Your task to perform on an android device: Go to wifi settings Image 0: 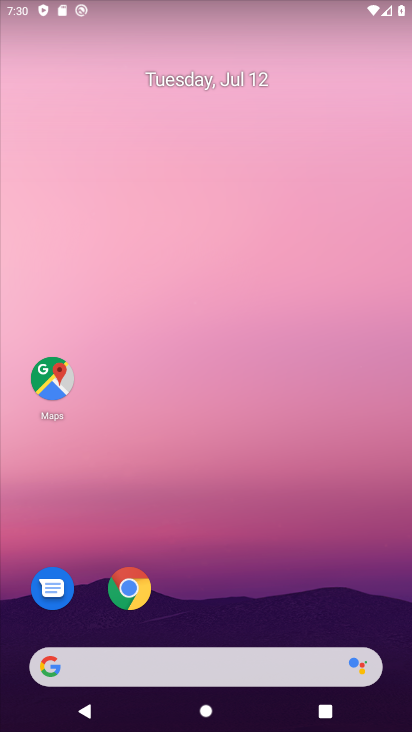
Step 0: drag from (248, 514) to (411, 12)
Your task to perform on an android device: Go to wifi settings Image 1: 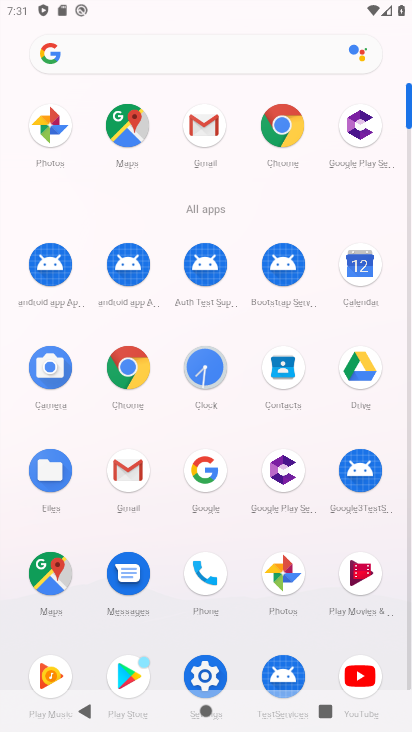
Step 1: click (207, 676)
Your task to perform on an android device: Go to wifi settings Image 2: 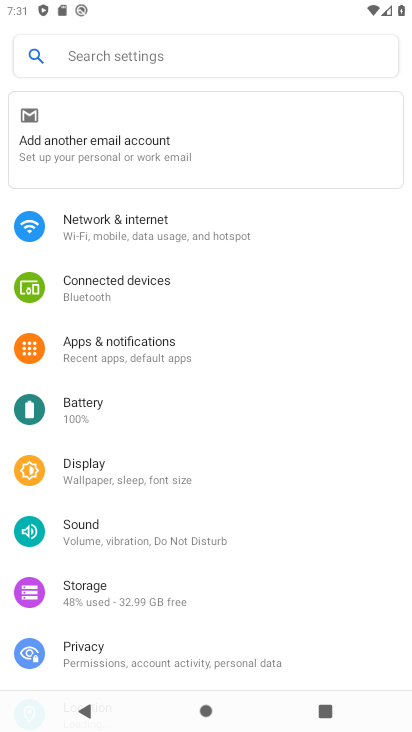
Step 2: click (85, 233)
Your task to perform on an android device: Go to wifi settings Image 3: 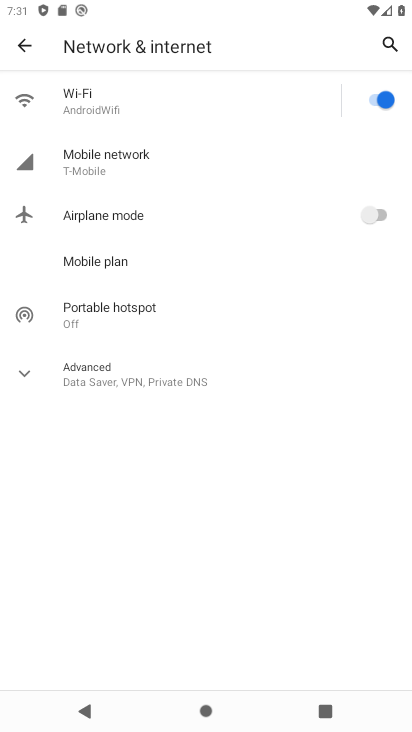
Step 3: click (94, 88)
Your task to perform on an android device: Go to wifi settings Image 4: 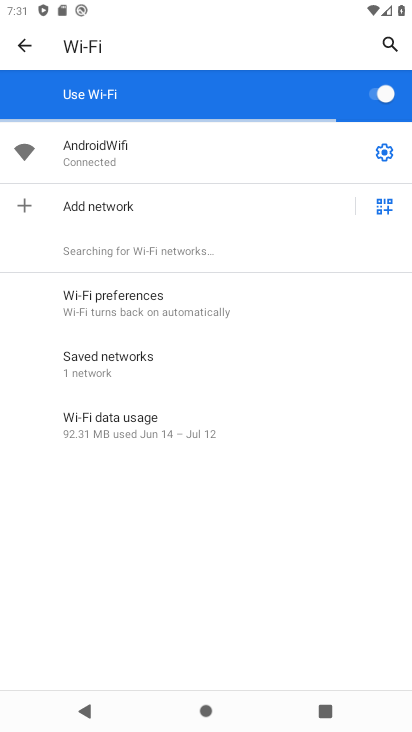
Step 4: task complete